Your task to perform on an android device: turn off sleep mode Image 0: 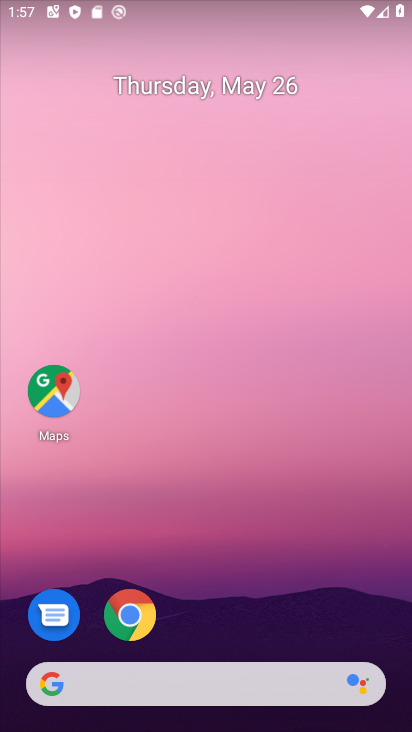
Step 0: press home button
Your task to perform on an android device: turn off sleep mode Image 1: 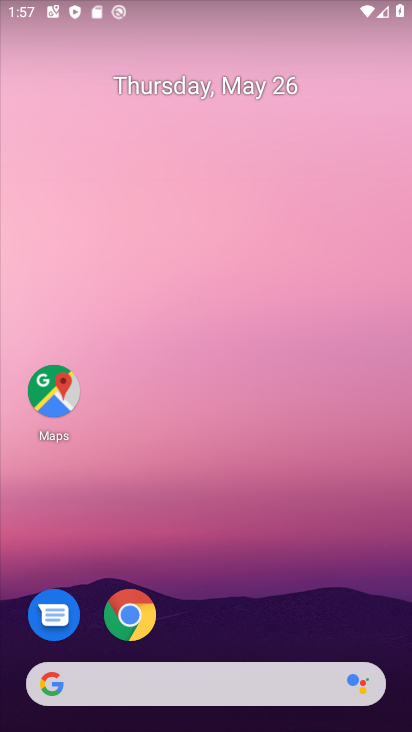
Step 1: drag from (223, 631) to (273, 96)
Your task to perform on an android device: turn off sleep mode Image 2: 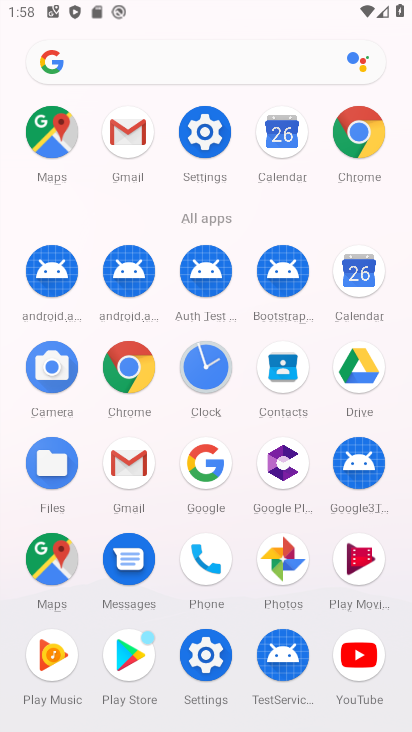
Step 2: click (201, 132)
Your task to perform on an android device: turn off sleep mode Image 3: 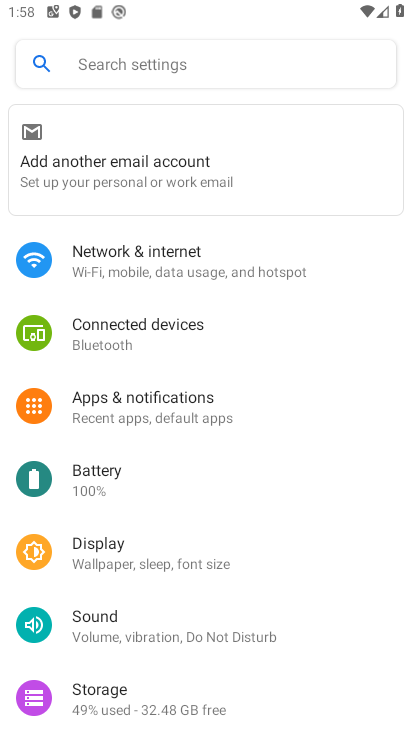
Step 3: click (130, 547)
Your task to perform on an android device: turn off sleep mode Image 4: 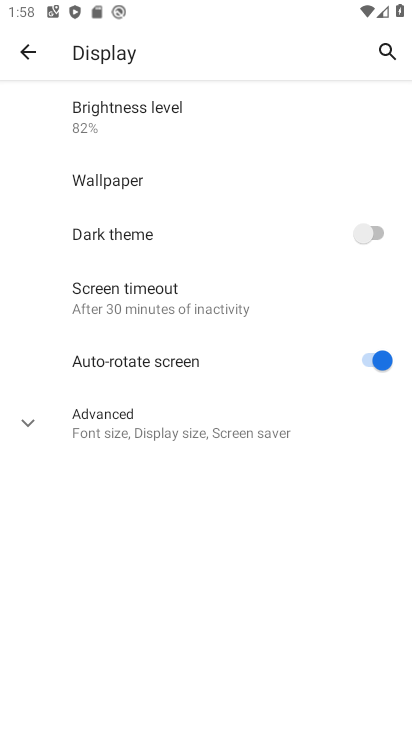
Step 4: click (36, 416)
Your task to perform on an android device: turn off sleep mode Image 5: 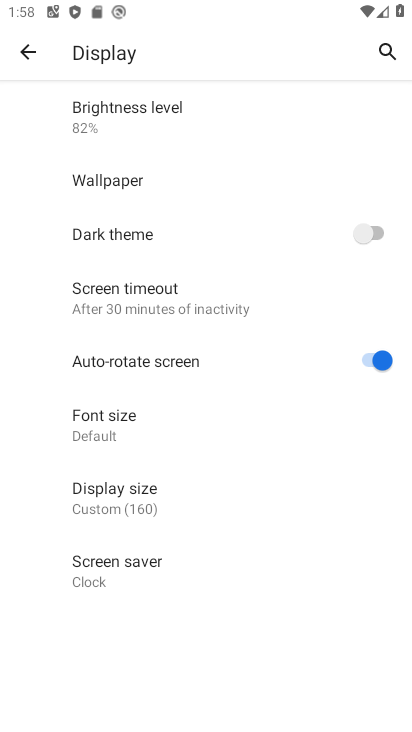
Step 5: task complete